Your task to perform on an android device: open app "Google Keep" Image 0: 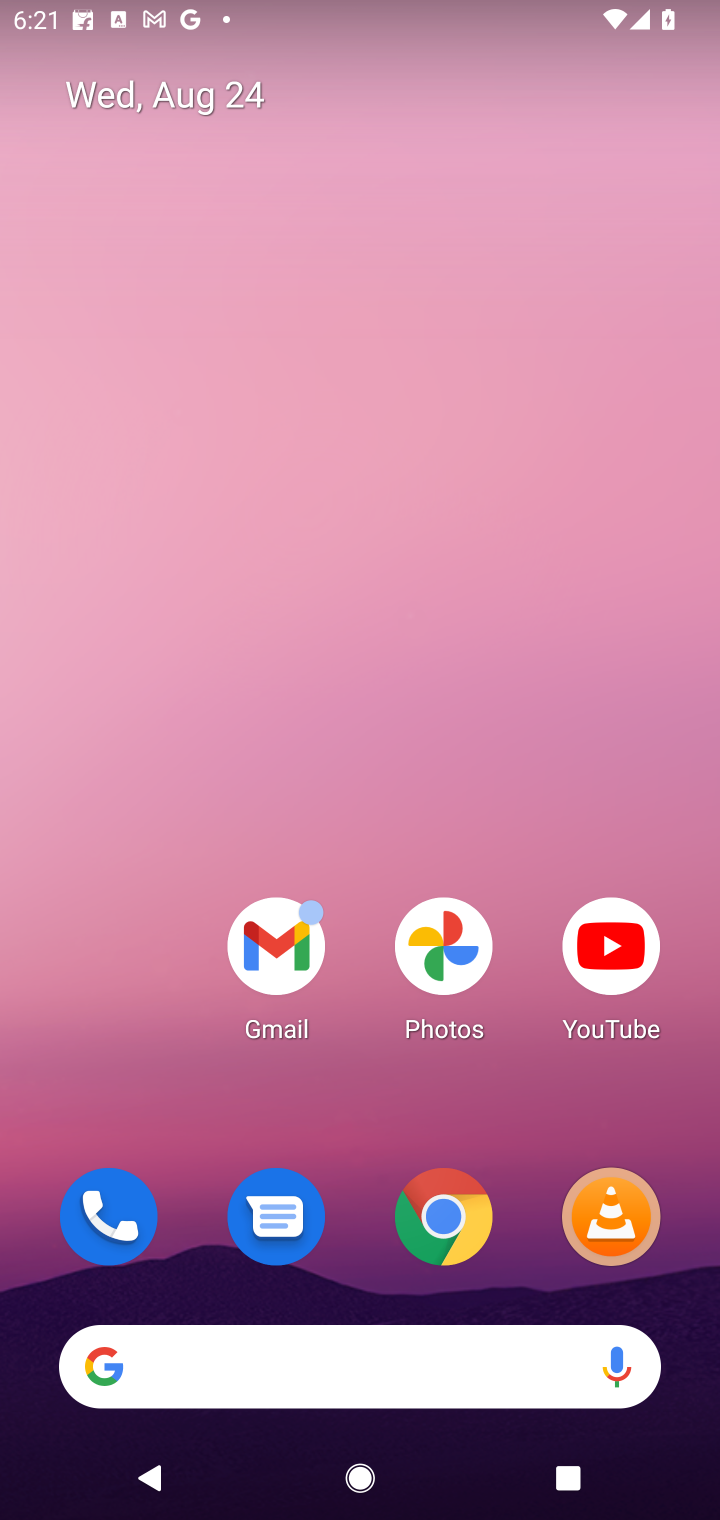
Step 0: drag from (334, 1097) to (336, 547)
Your task to perform on an android device: open app "Google Keep" Image 1: 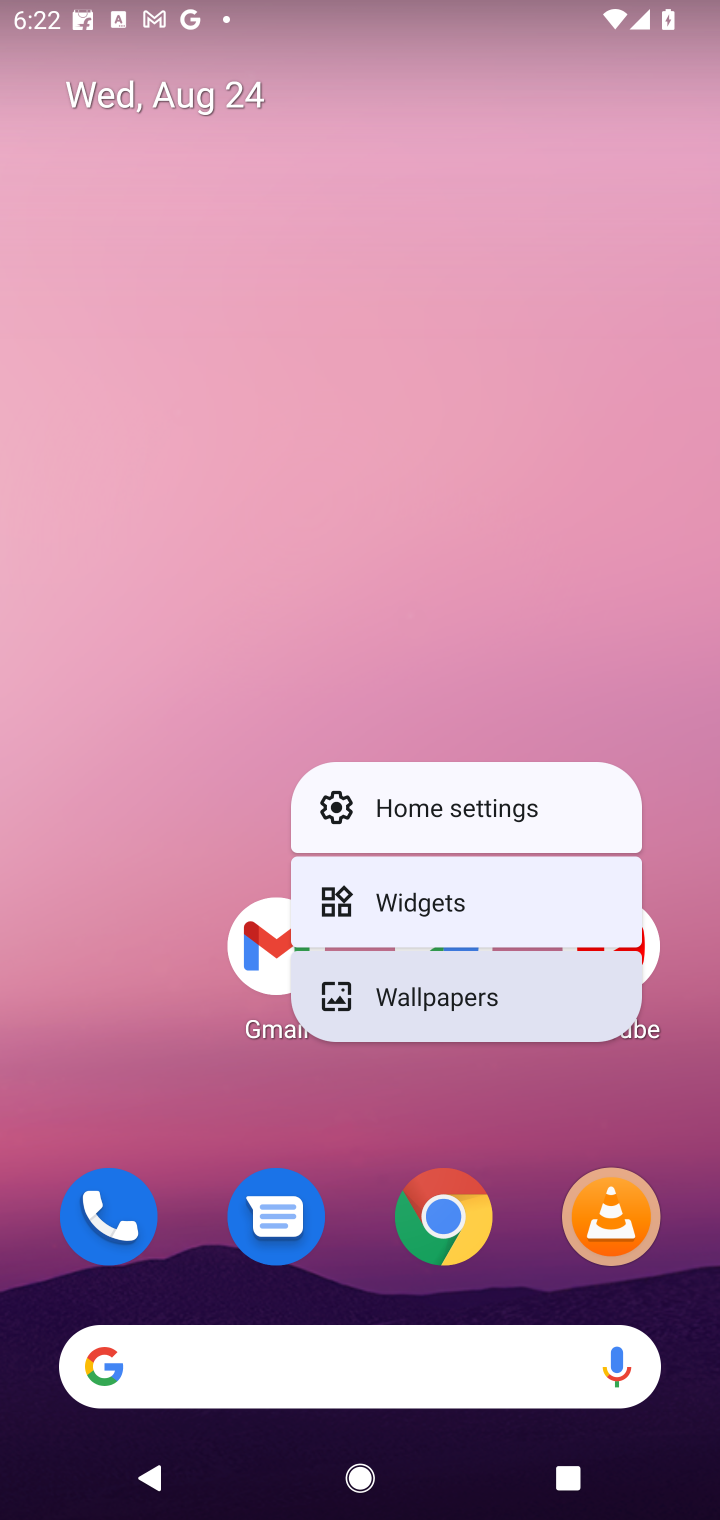
Step 1: click (335, 1102)
Your task to perform on an android device: open app "Google Keep" Image 2: 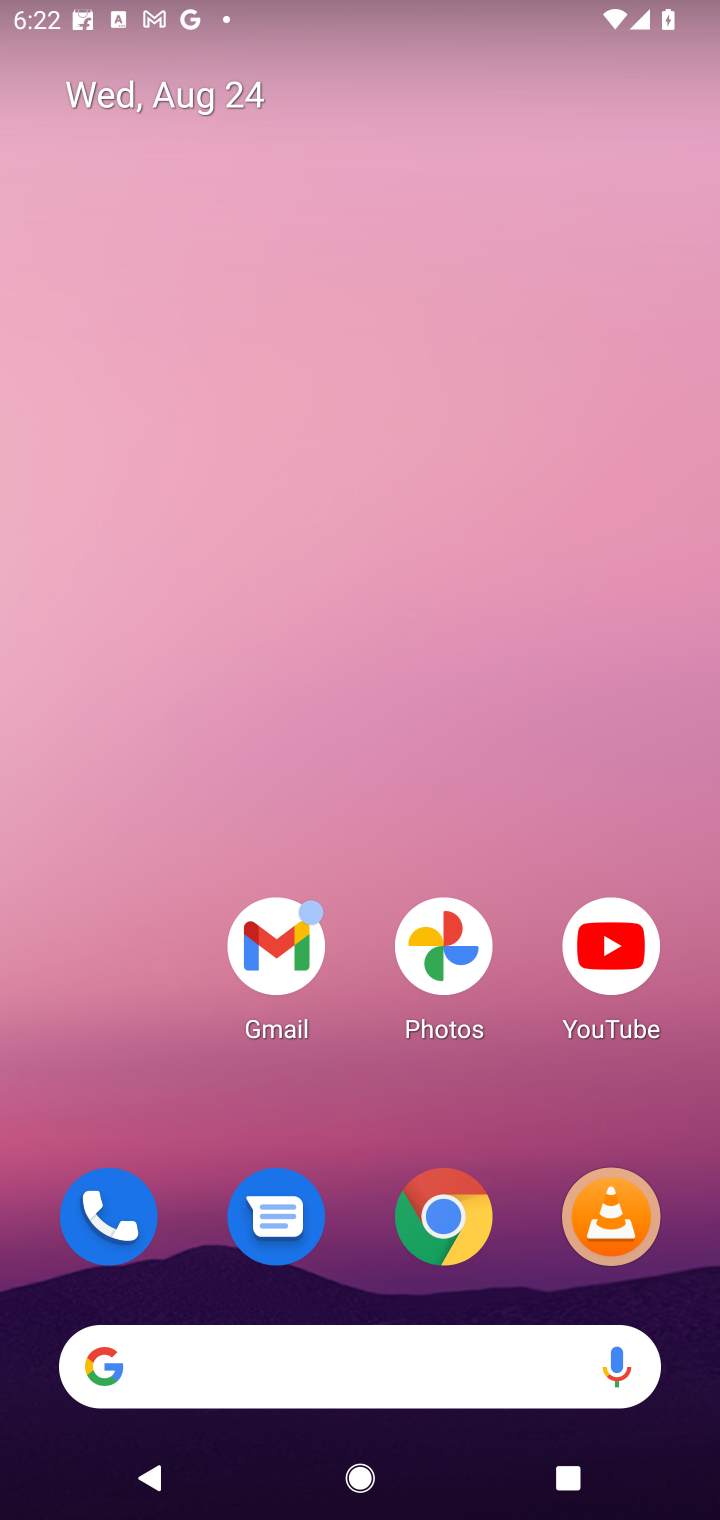
Step 2: drag from (351, 1008) to (443, 290)
Your task to perform on an android device: open app "Google Keep" Image 3: 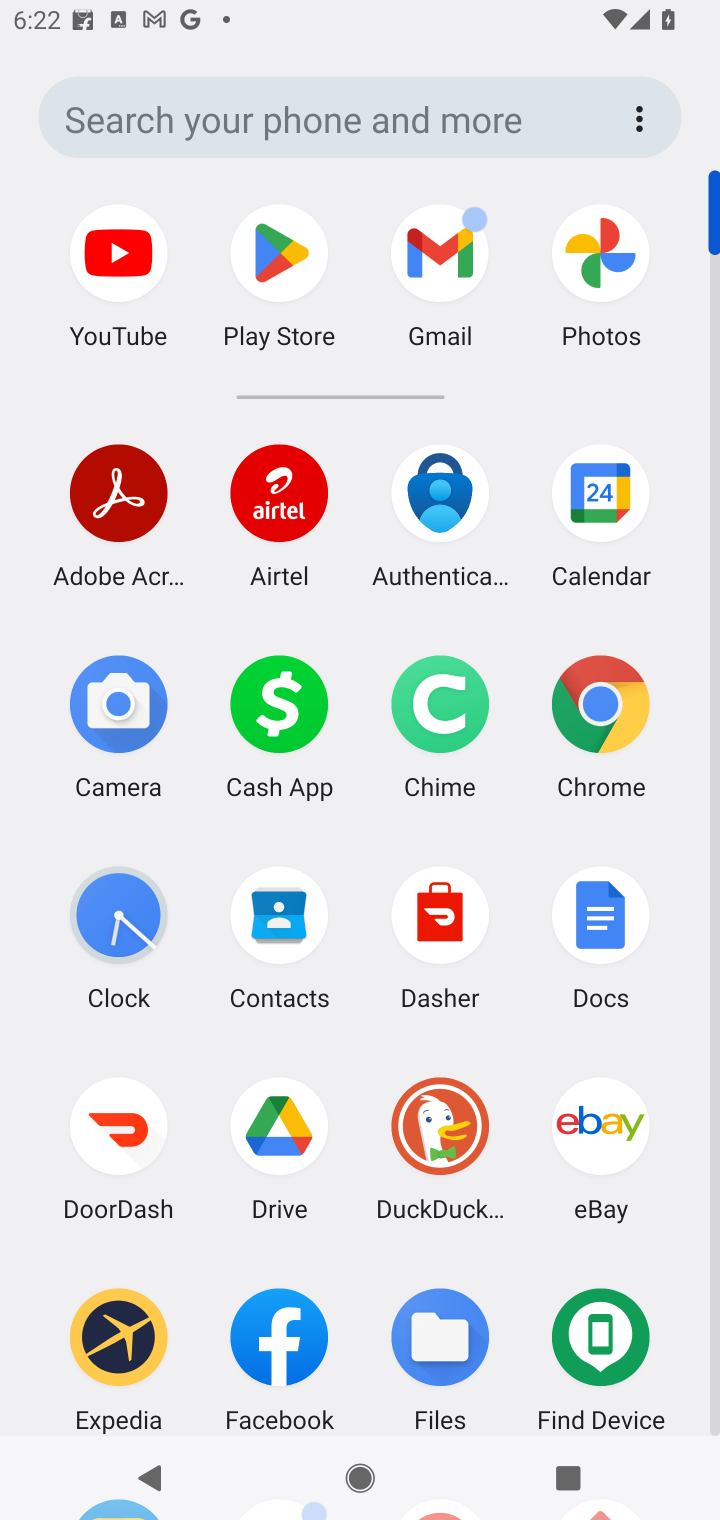
Step 3: click (292, 242)
Your task to perform on an android device: open app "Google Keep" Image 4: 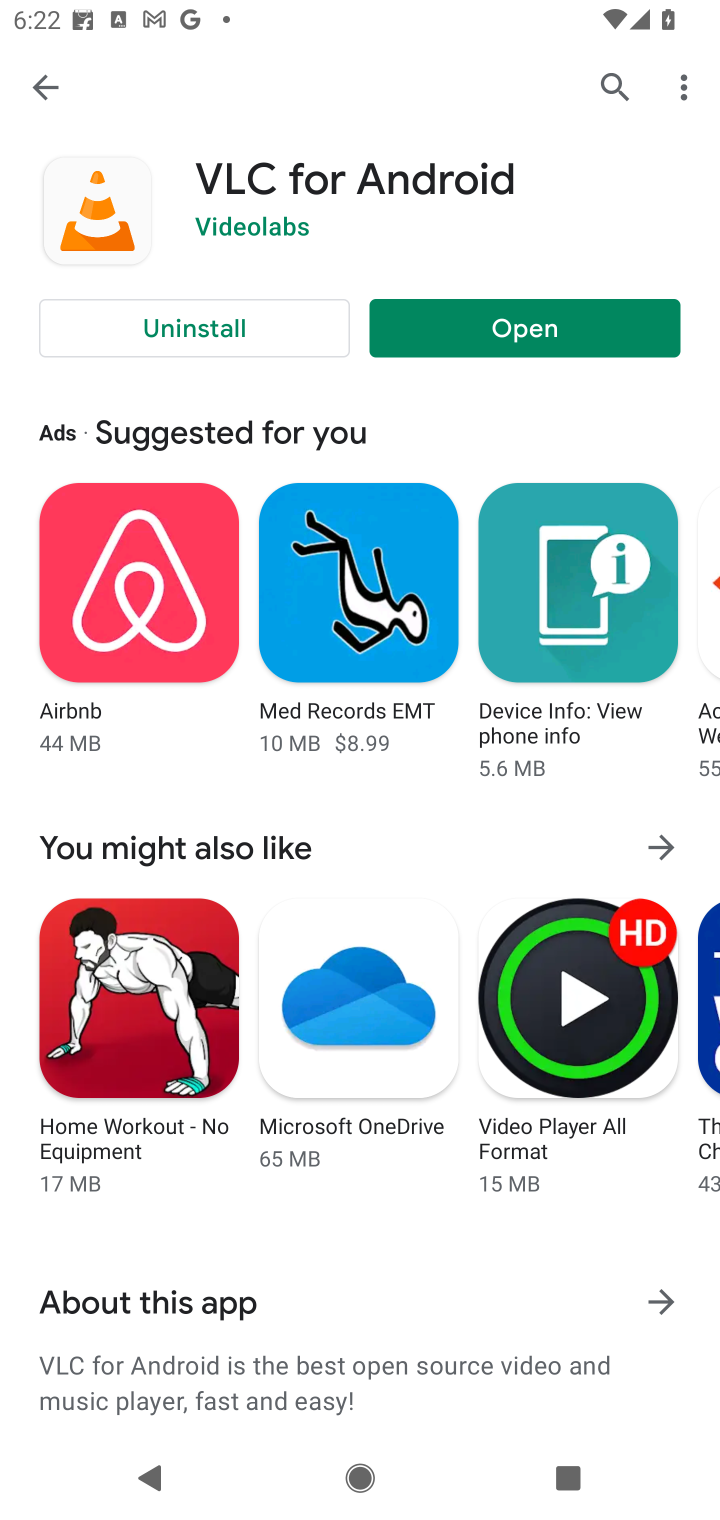
Step 4: click (640, 85)
Your task to perform on an android device: open app "Google Keep" Image 5: 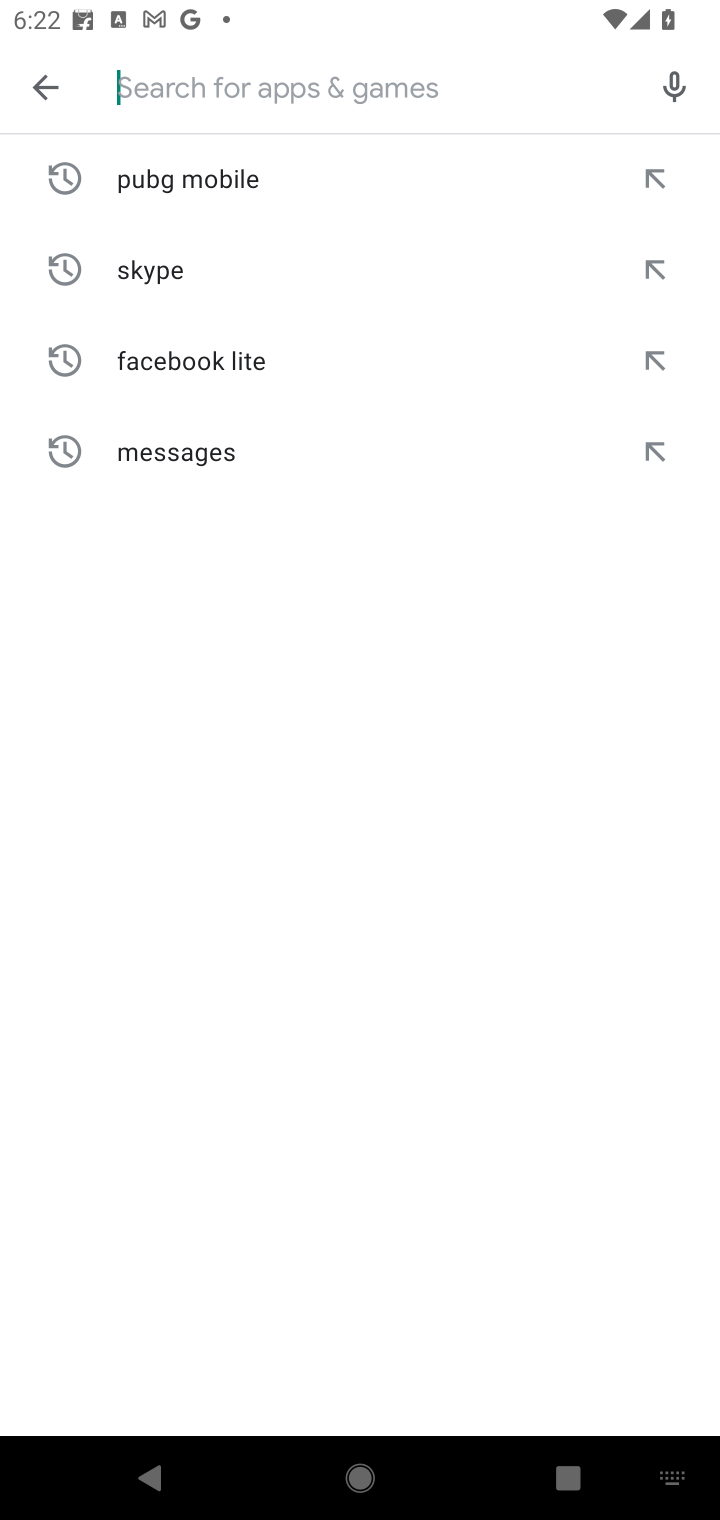
Step 5: type "Google Keep"
Your task to perform on an android device: open app "Google Keep" Image 6: 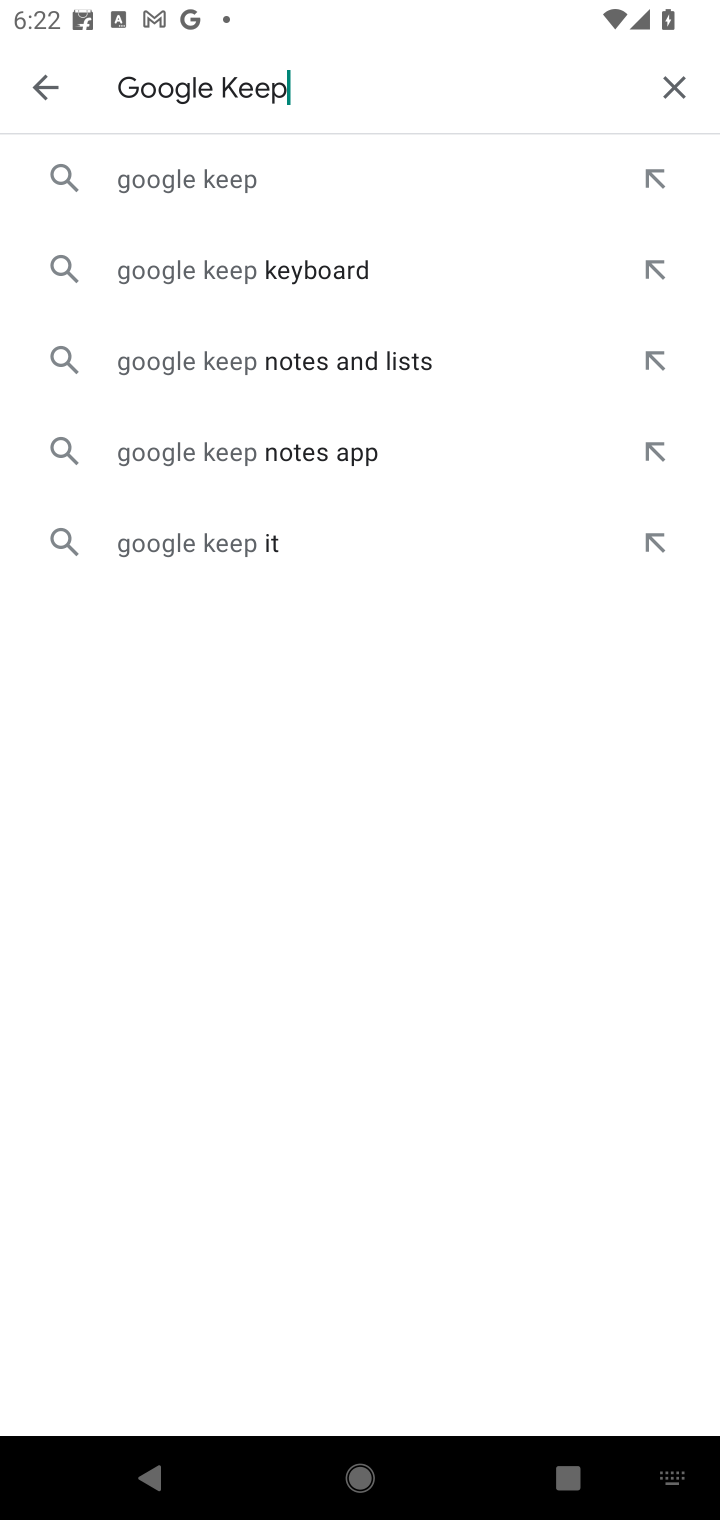
Step 6: click (189, 173)
Your task to perform on an android device: open app "Google Keep" Image 7: 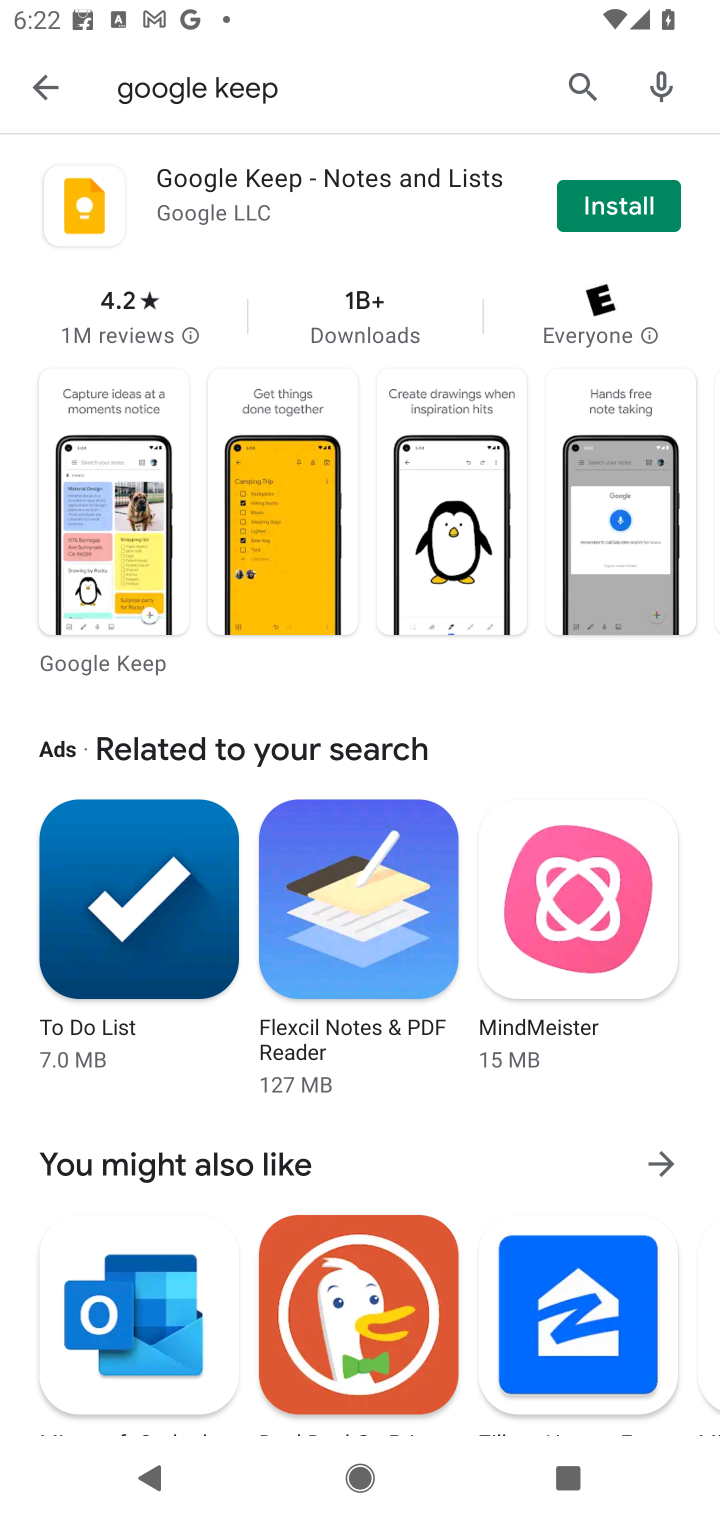
Step 7: task complete